Your task to perform on an android device: empty trash in the gmail app Image 0: 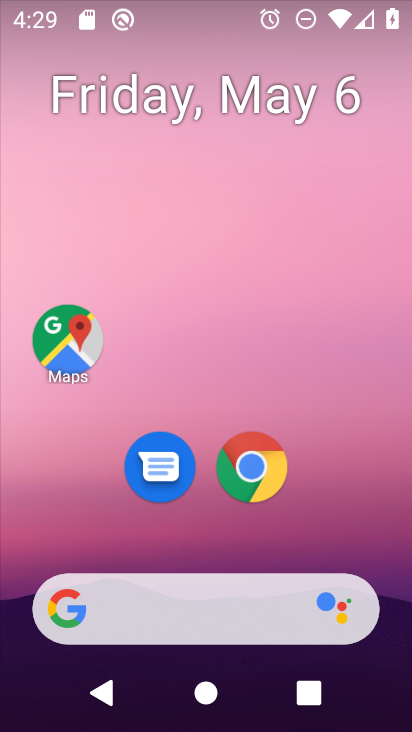
Step 0: drag from (313, 514) to (258, 89)
Your task to perform on an android device: empty trash in the gmail app Image 1: 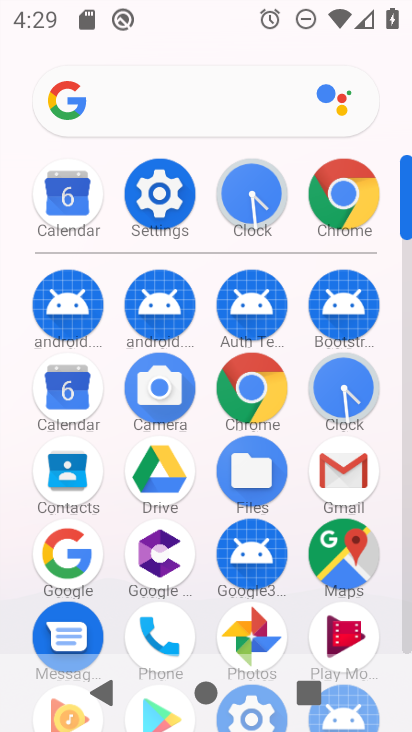
Step 1: click (343, 486)
Your task to perform on an android device: empty trash in the gmail app Image 2: 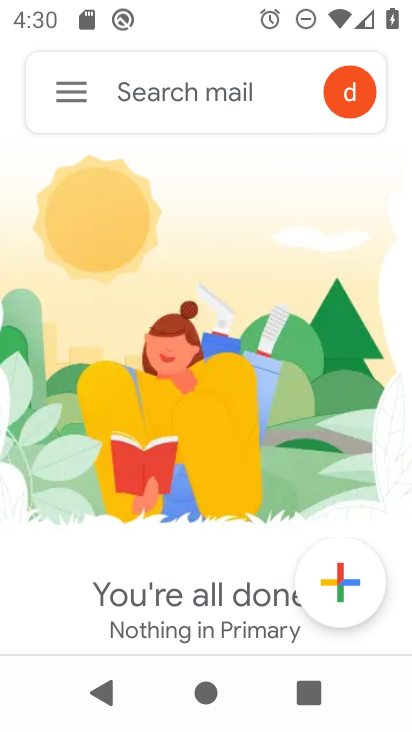
Step 2: click (83, 101)
Your task to perform on an android device: empty trash in the gmail app Image 3: 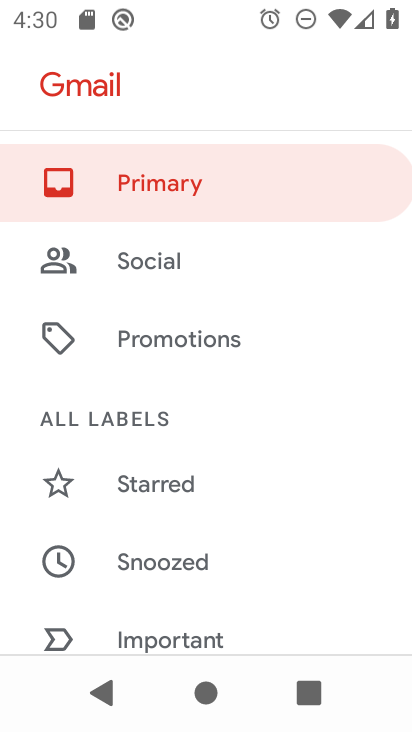
Step 3: drag from (234, 565) to (227, 165)
Your task to perform on an android device: empty trash in the gmail app Image 4: 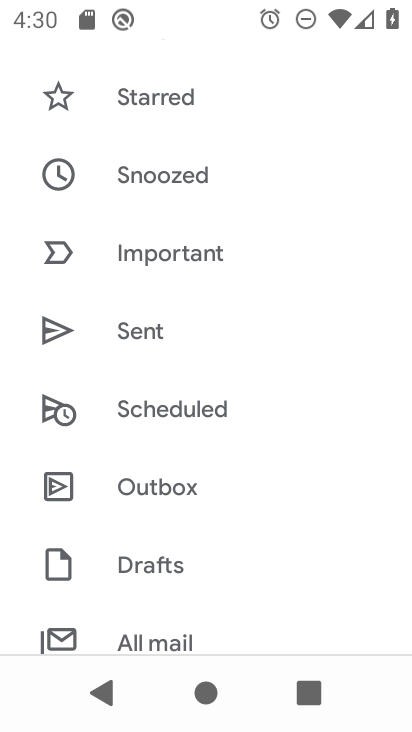
Step 4: drag from (222, 547) to (238, 134)
Your task to perform on an android device: empty trash in the gmail app Image 5: 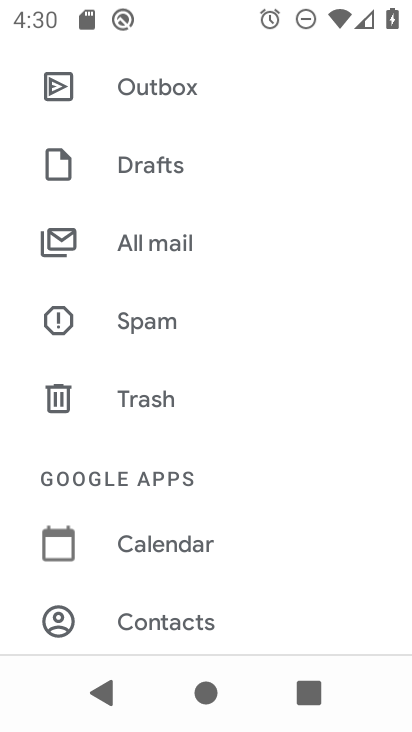
Step 5: click (149, 391)
Your task to perform on an android device: empty trash in the gmail app Image 6: 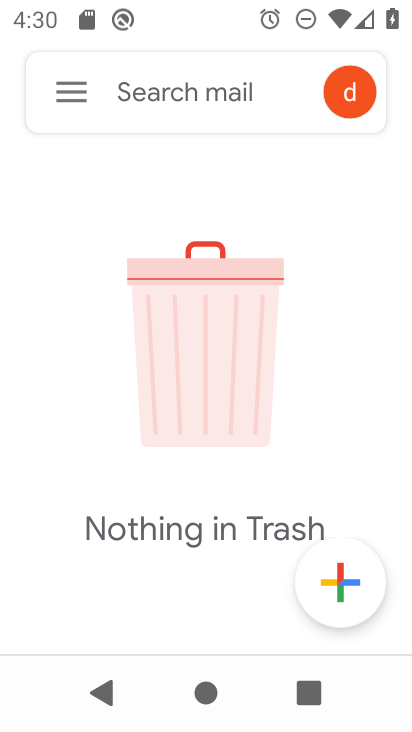
Step 6: task complete